Your task to perform on an android device: see sites visited before in the chrome app Image 0: 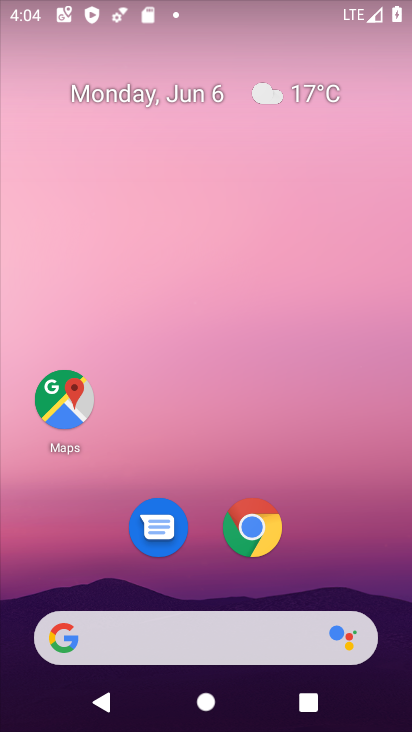
Step 0: click (266, 521)
Your task to perform on an android device: see sites visited before in the chrome app Image 1: 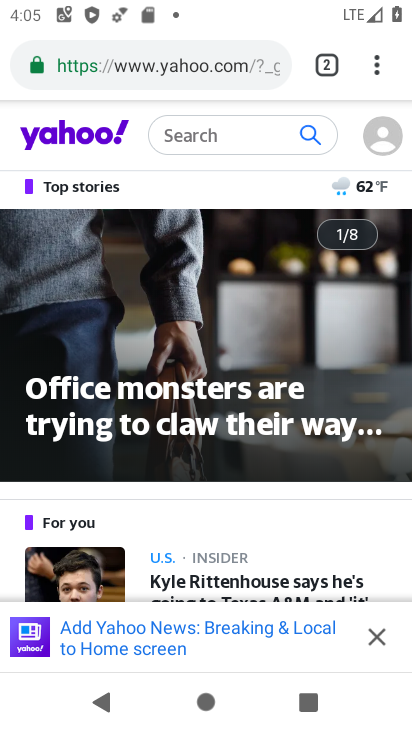
Step 1: click (370, 61)
Your task to perform on an android device: see sites visited before in the chrome app Image 2: 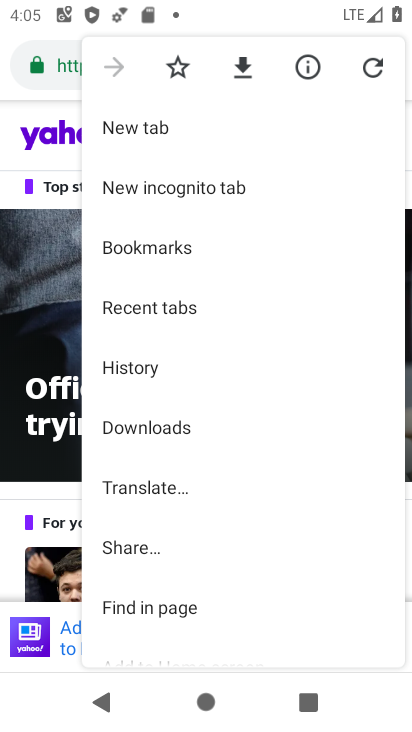
Step 2: drag from (340, 604) to (313, 278)
Your task to perform on an android device: see sites visited before in the chrome app Image 3: 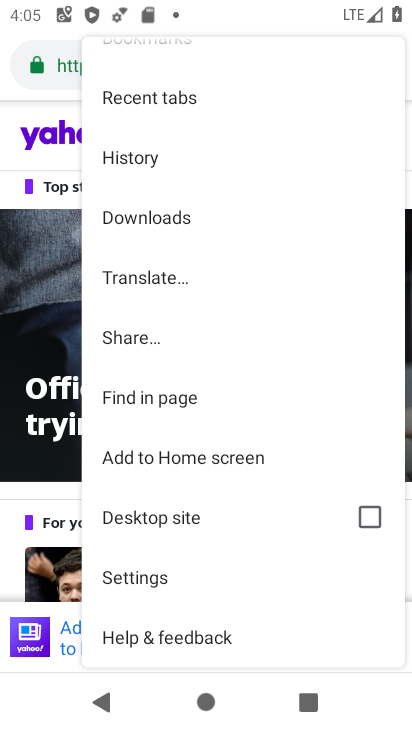
Step 3: click (138, 575)
Your task to perform on an android device: see sites visited before in the chrome app Image 4: 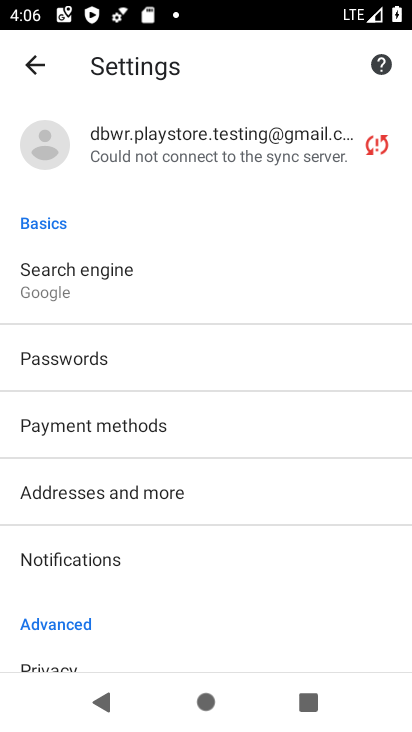
Step 4: drag from (228, 599) to (293, 300)
Your task to perform on an android device: see sites visited before in the chrome app Image 5: 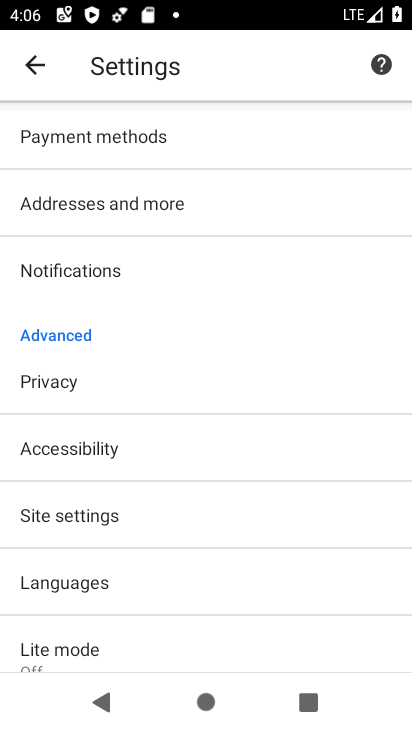
Step 5: click (97, 505)
Your task to perform on an android device: see sites visited before in the chrome app Image 6: 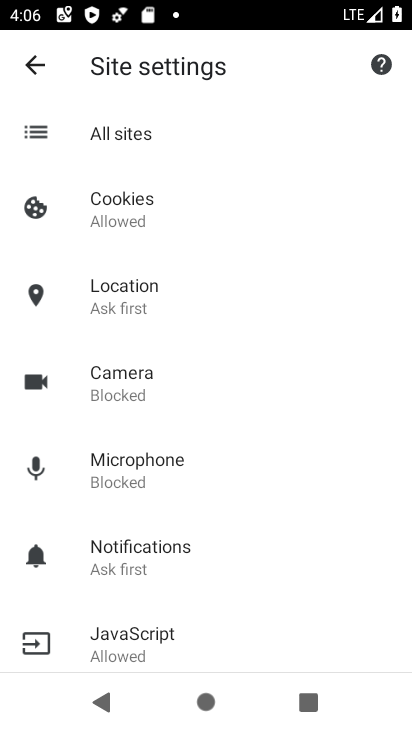
Step 6: task complete